Your task to perform on an android device: Open maps Image 0: 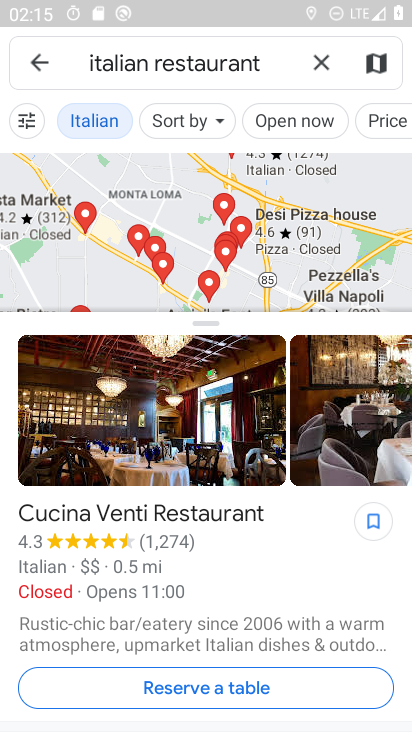
Step 0: task complete